Your task to perform on an android device: Go to settings Image 0: 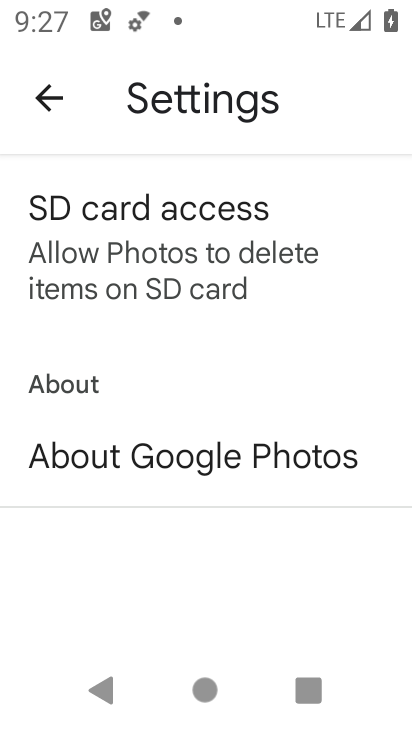
Step 0: press home button
Your task to perform on an android device: Go to settings Image 1: 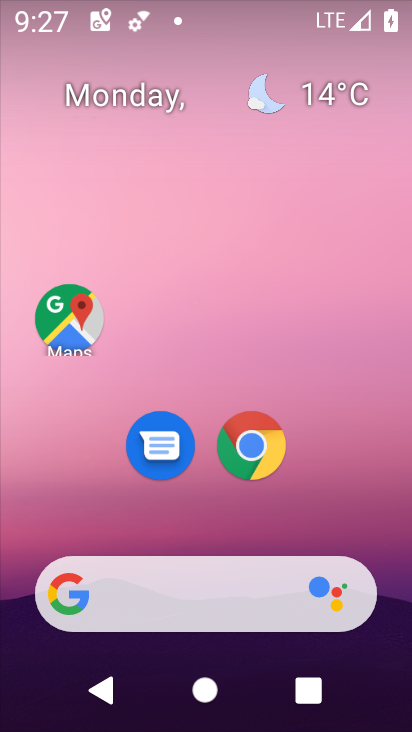
Step 1: drag from (210, 519) to (218, 15)
Your task to perform on an android device: Go to settings Image 2: 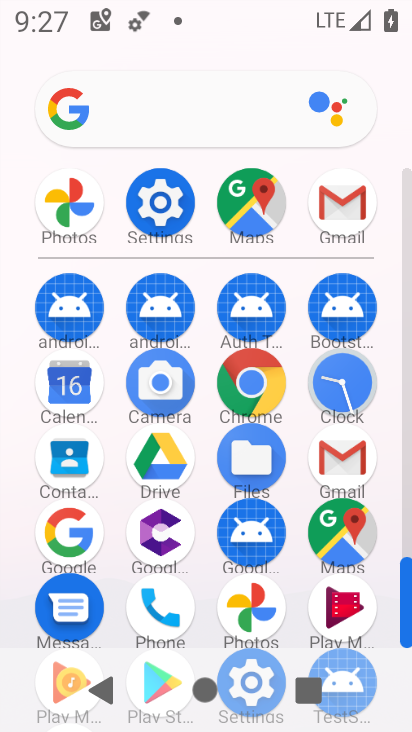
Step 2: click (156, 200)
Your task to perform on an android device: Go to settings Image 3: 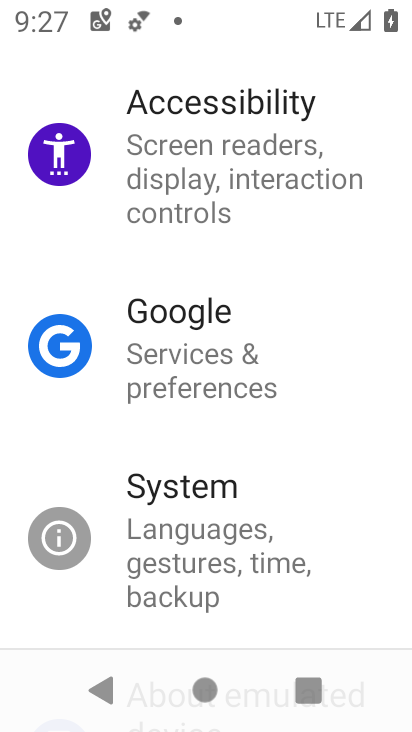
Step 3: task complete